Your task to perform on an android device: Find coffee shops on Maps Image 0: 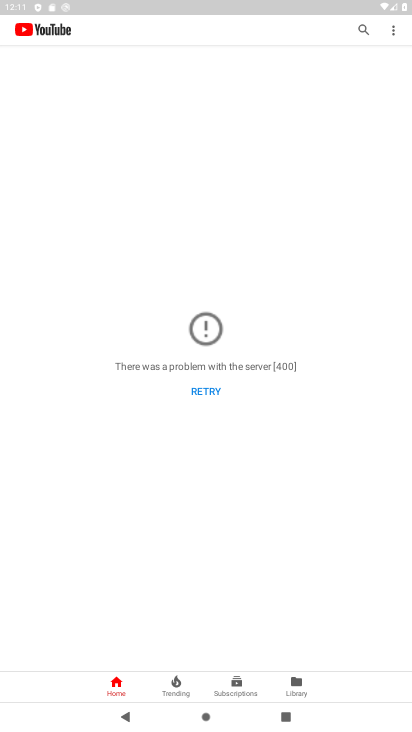
Step 0: press home button
Your task to perform on an android device: Find coffee shops on Maps Image 1: 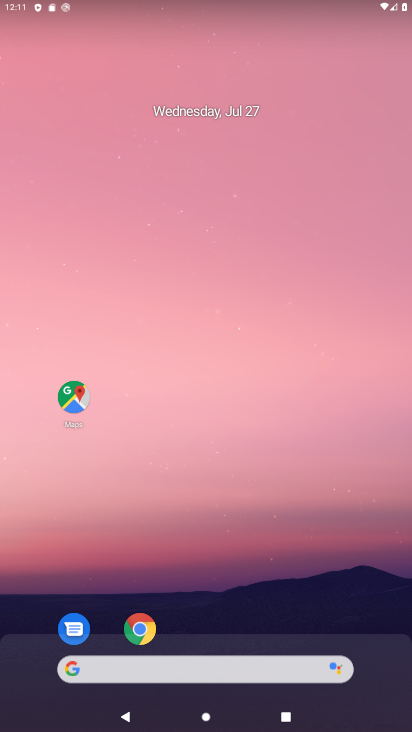
Step 1: click (65, 399)
Your task to perform on an android device: Find coffee shops on Maps Image 2: 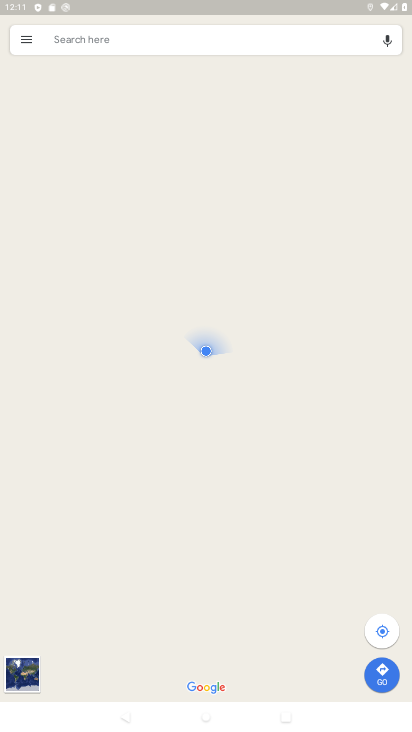
Step 2: click (173, 49)
Your task to perform on an android device: Find coffee shops on Maps Image 3: 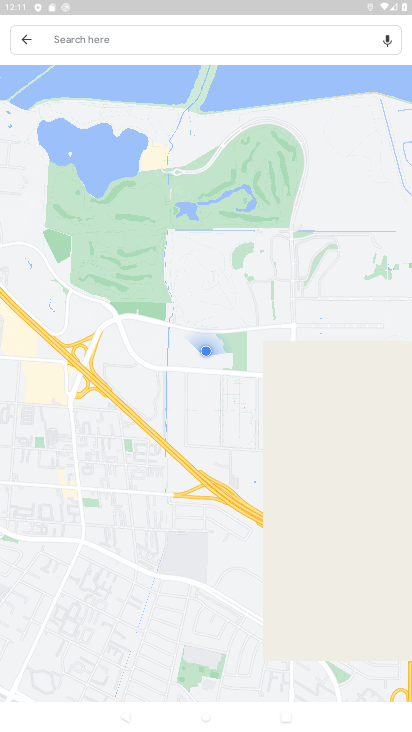
Step 3: click (173, 49)
Your task to perform on an android device: Find coffee shops on Maps Image 4: 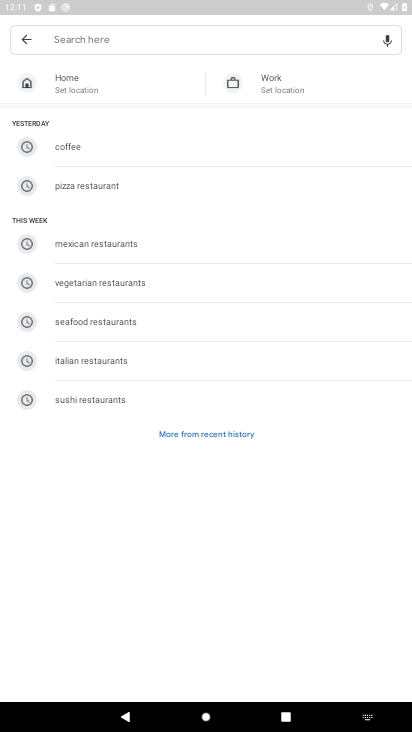
Step 4: type "coffee shops"
Your task to perform on an android device: Find coffee shops on Maps Image 5: 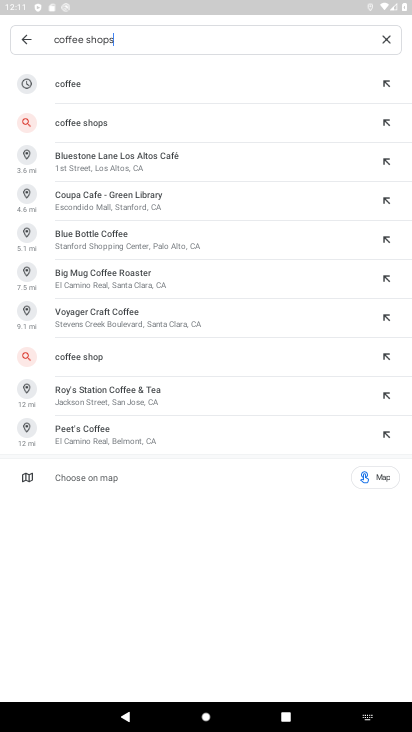
Step 5: click (224, 131)
Your task to perform on an android device: Find coffee shops on Maps Image 6: 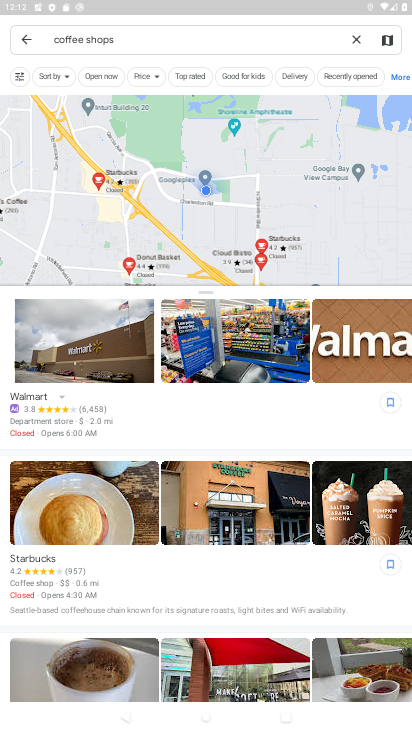
Step 6: task complete